Your task to perform on an android device: check android version Image 0: 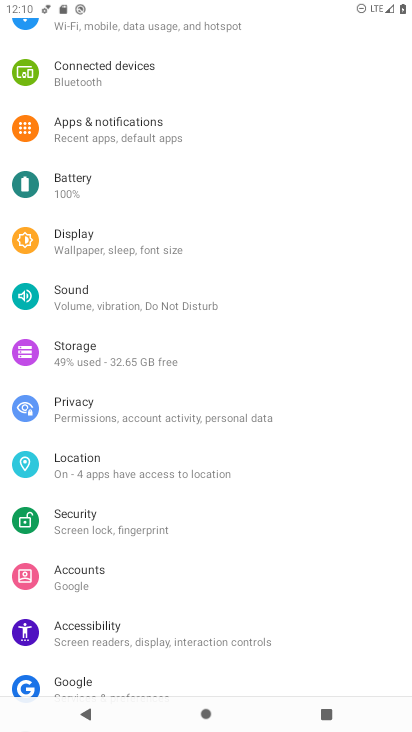
Step 0: press home button
Your task to perform on an android device: check android version Image 1: 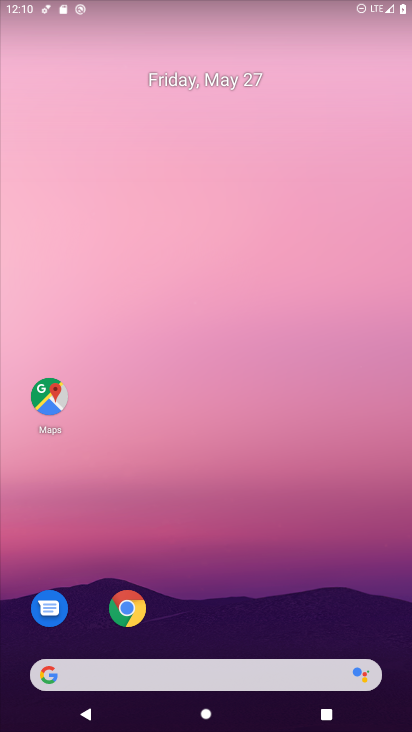
Step 1: drag from (152, 673) to (284, 74)
Your task to perform on an android device: check android version Image 2: 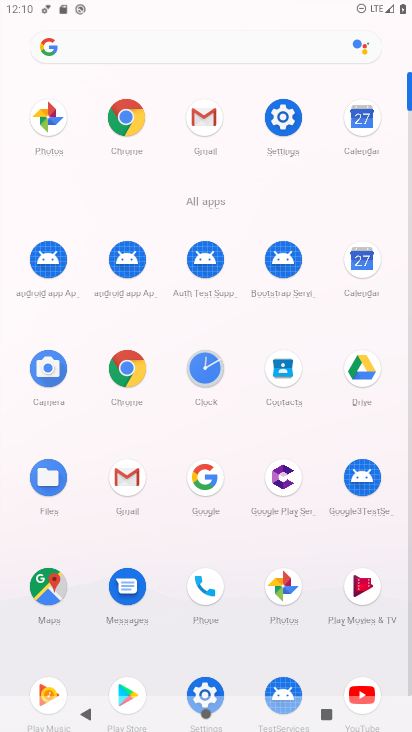
Step 2: click (278, 119)
Your task to perform on an android device: check android version Image 3: 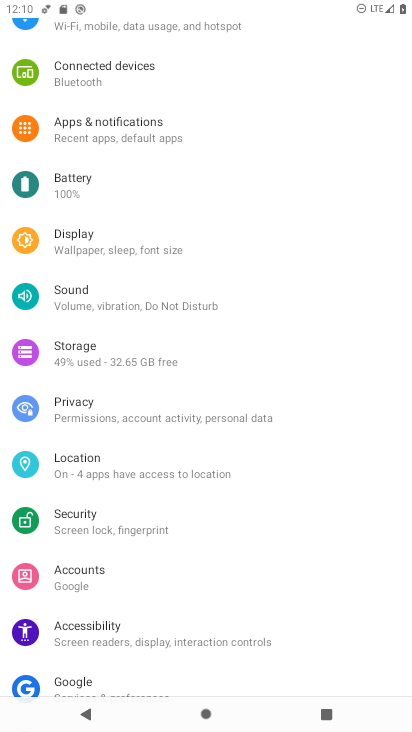
Step 3: drag from (218, 674) to (311, 238)
Your task to perform on an android device: check android version Image 4: 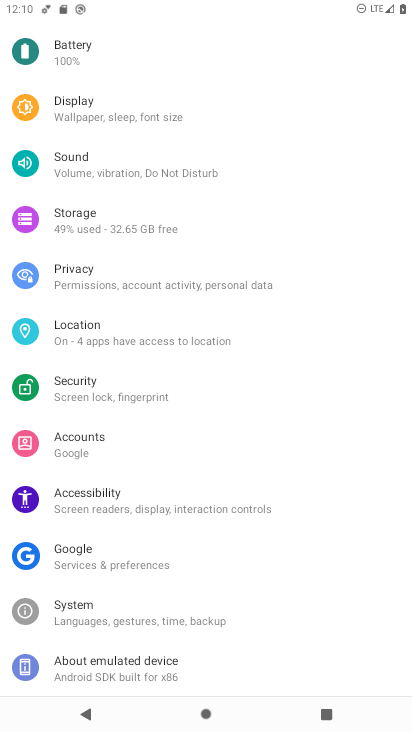
Step 4: click (167, 670)
Your task to perform on an android device: check android version Image 5: 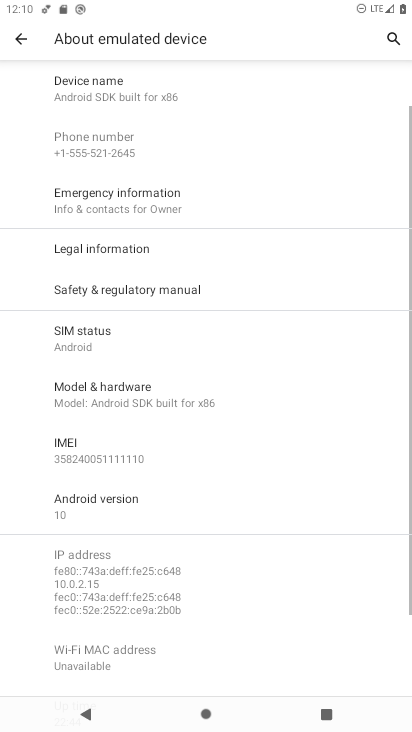
Step 5: click (125, 497)
Your task to perform on an android device: check android version Image 6: 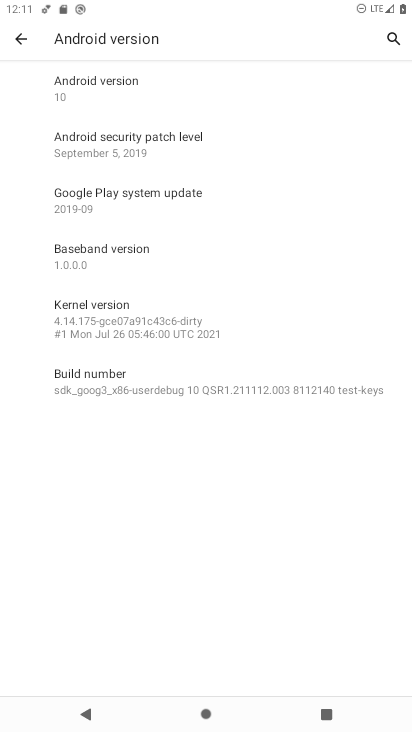
Step 6: task complete